Your task to perform on an android device: open wifi settings Image 0: 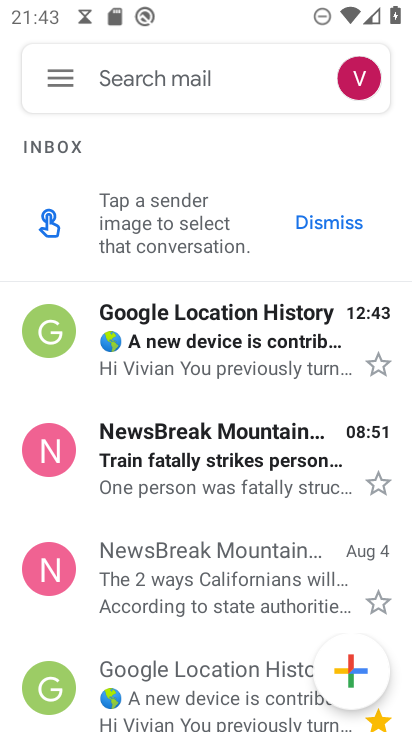
Step 0: press home button
Your task to perform on an android device: open wifi settings Image 1: 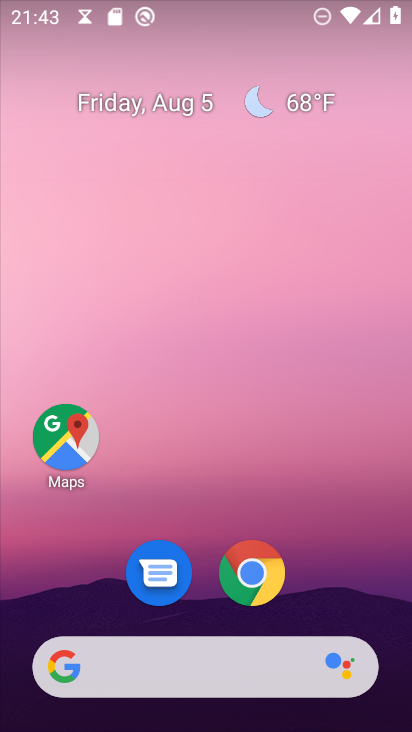
Step 1: drag from (197, 682) to (295, 137)
Your task to perform on an android device: open wifi settings Image 2: 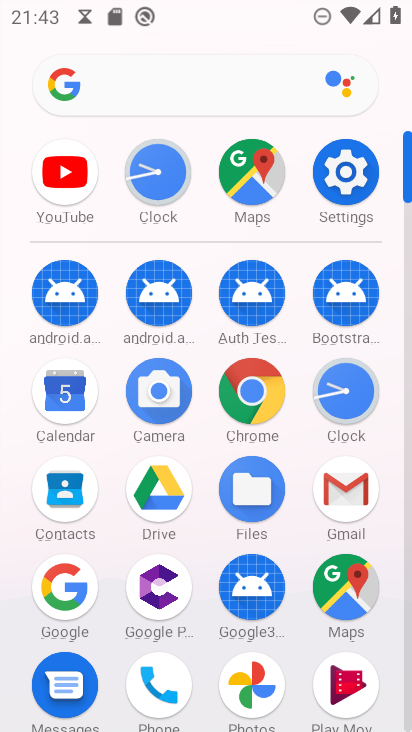
Step 2: click (344, 171)
Your task to perform on an android device: open wifi settings Image 3: 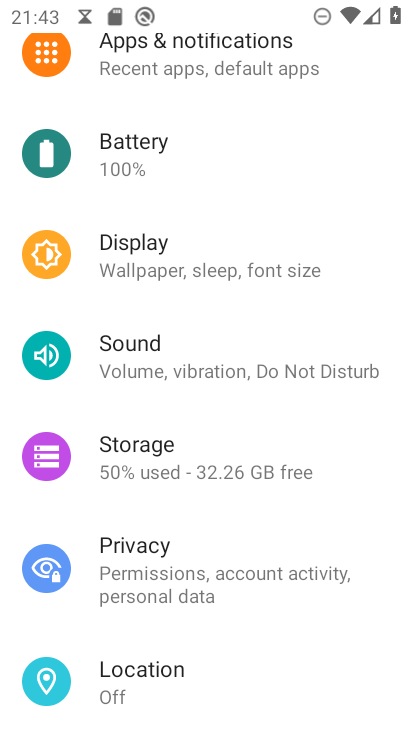
Step 3: drag from (266, 191) to (197, 535)
Your task to perform on an android device: open wifi settings Image 4: 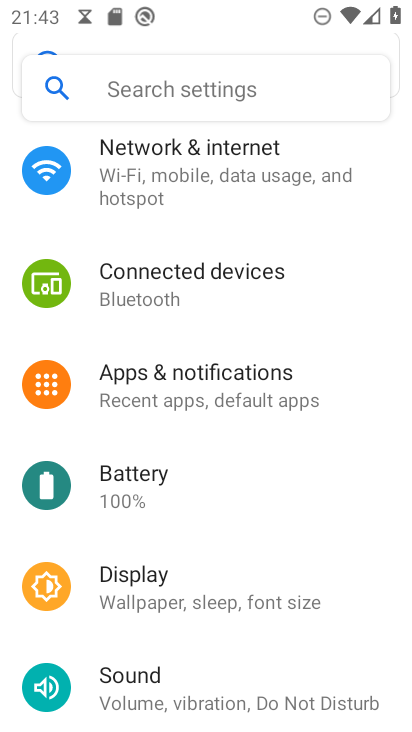
Step 4: drag from (187, 245) to (176, 387)
Your task to perform on an android device: open wifi settings Image 5: 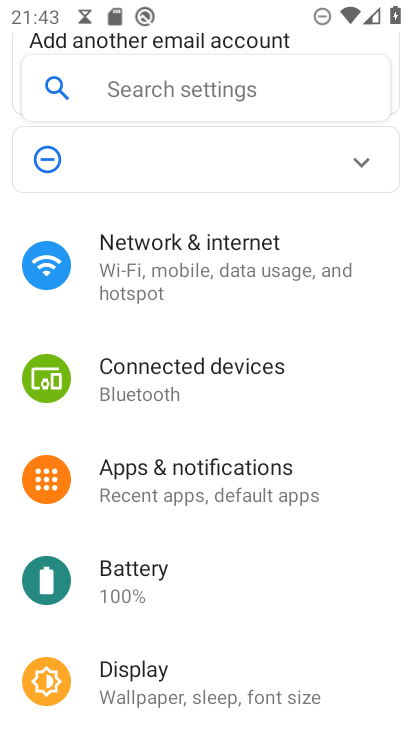
Step 5: click (156, 246)
Your task to perform on an android device: open wifi settings Image 6: 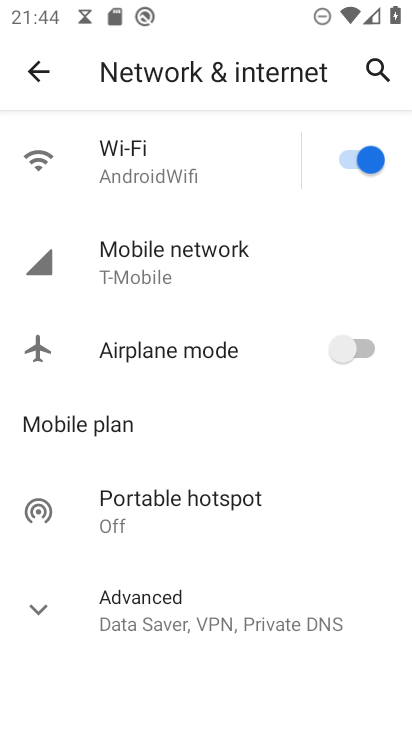
Step 6: click (134, 171)
Your task to perform on an android device: open wifi settings Image 7: 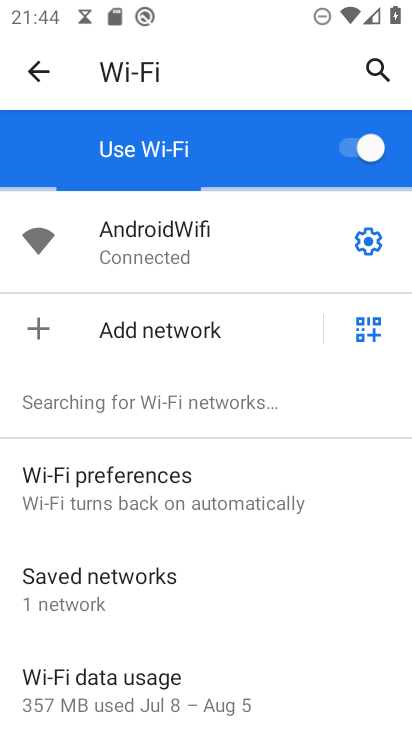
Step 7: click (368, 242)
Your task to perform on an android device: open wifi settings Image 8: 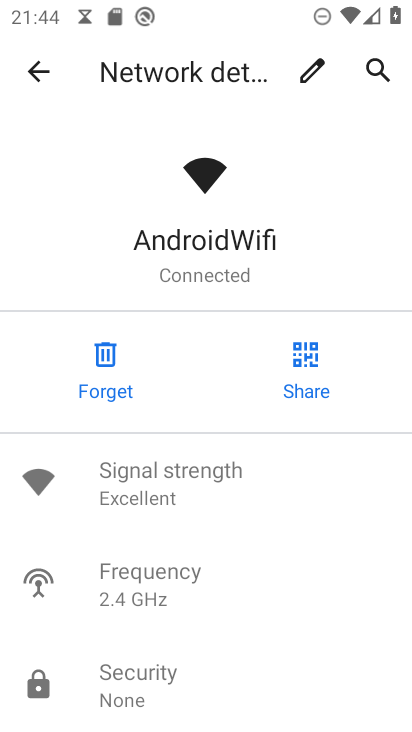
Step 8: task complete